Your task to perform on an android device: See recent photos Image 0: 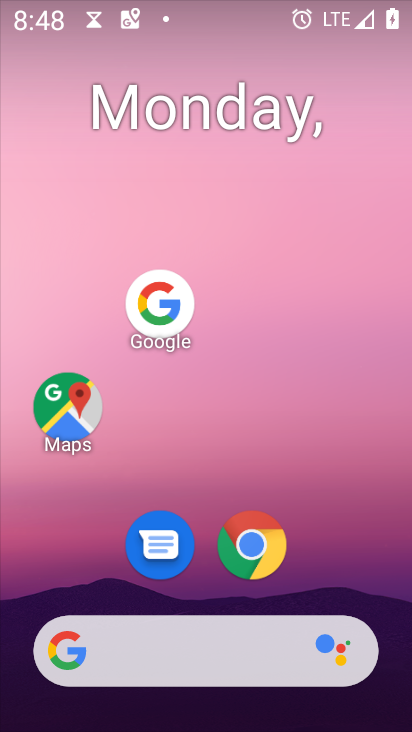
Step 0: press home button
Your task to perform on an android device: See recent photos Image 1: 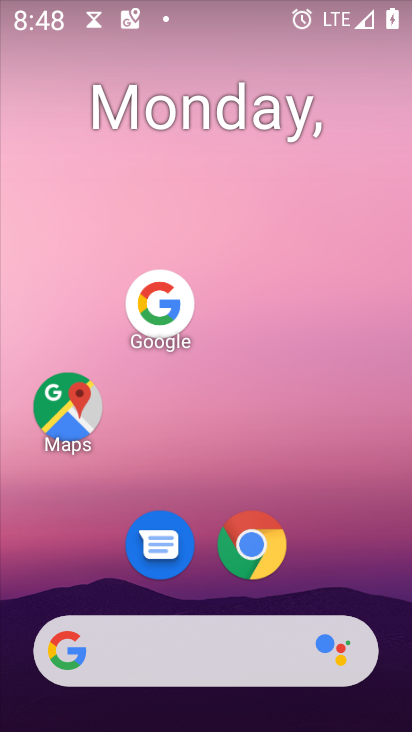
Step 1: drag from (155, 654) to (253, 177)
Your task to perform on an android device: See recent photos Image 2: 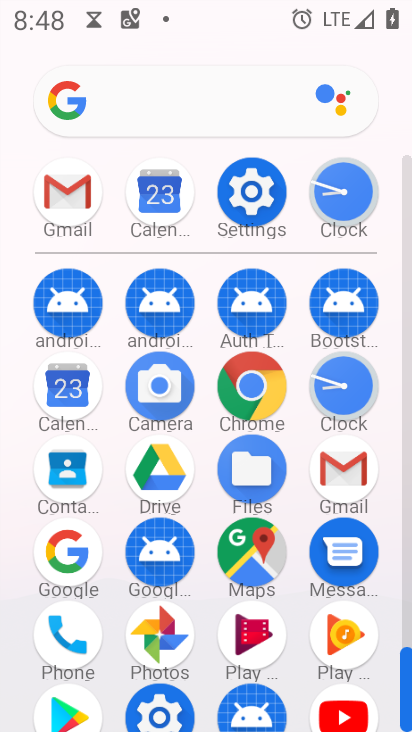
Step 2: click (167, 639)
Your task to perform on an android device: See recent photos Image 3: 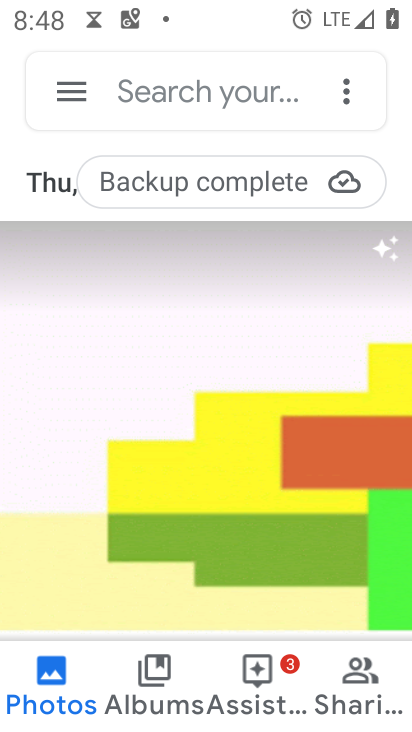
Step 3: click (162, 699)
Your task to perform on an android device: See recent photos Image 4: 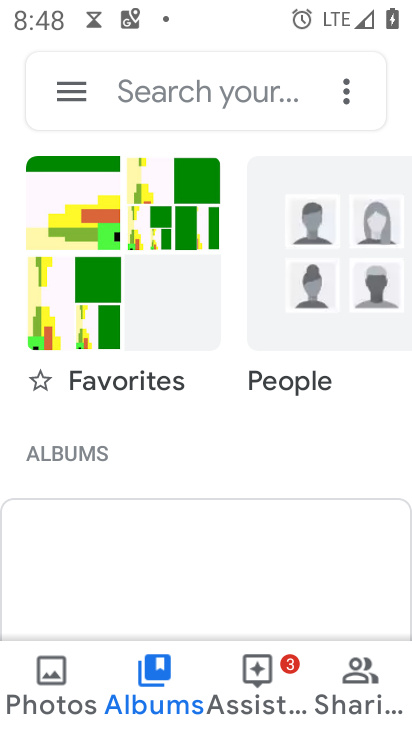
Step 4: task complete